Your task to perform on an android device: change the clock style Image 0: 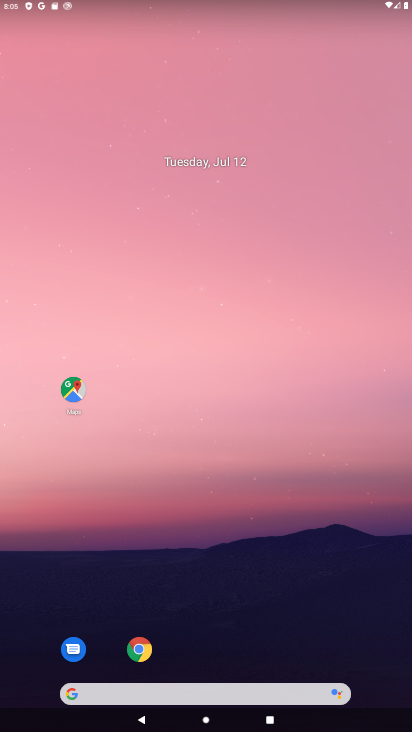
Step 0: drag from (295, 644) to (286, 193)
Your task to perform on an android device: change the clock style Image 1: 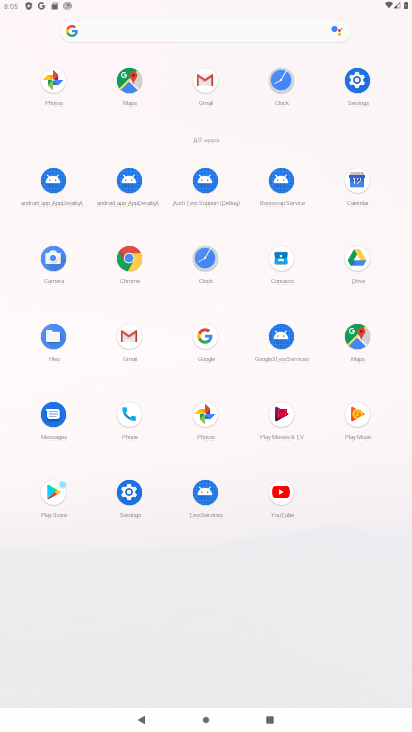
Step 1: click (210, 266)
Your task to perform on an android device: change the clock style Image 2: 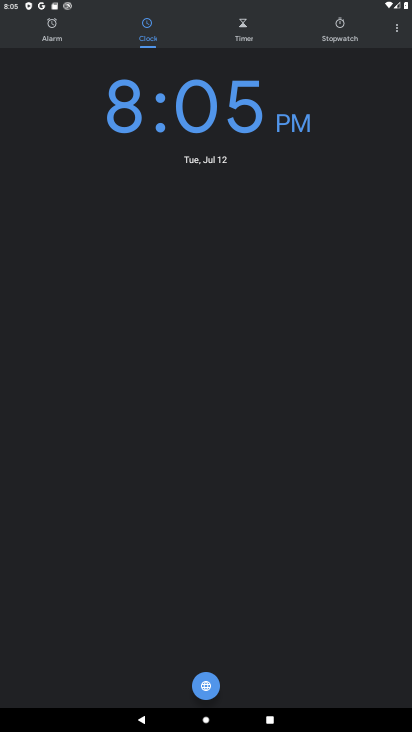
Step 2: click (392, 29)
Your task to perform on an android device: change the clock style Image 3: 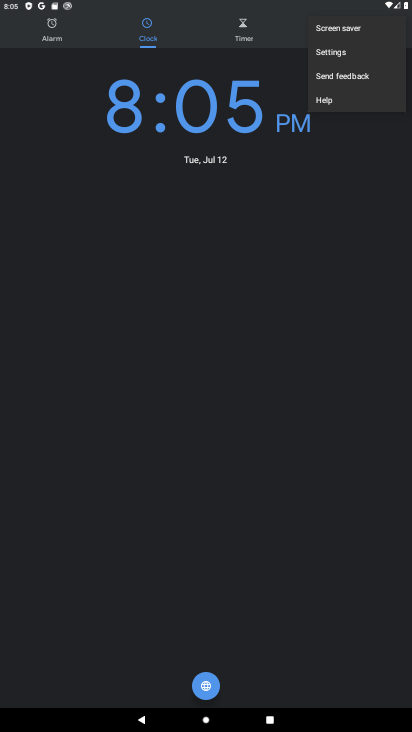
Step 3: click (347, 50)
Your task to perform on an android device: change the clock style Image 4: 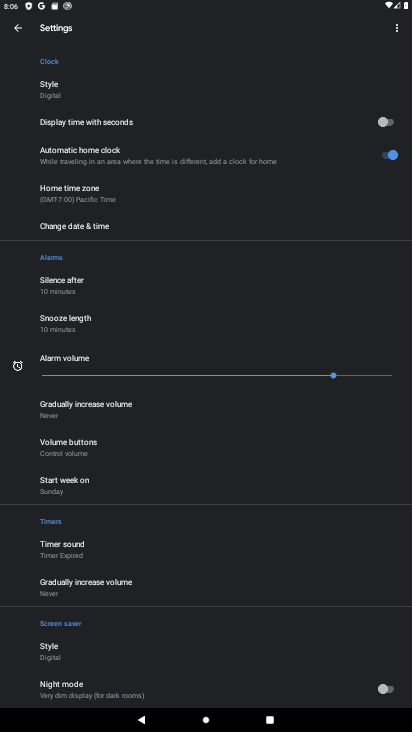
Step 4: click (150, 95)
Your task to perform on an android device: change the clock style Image 5: 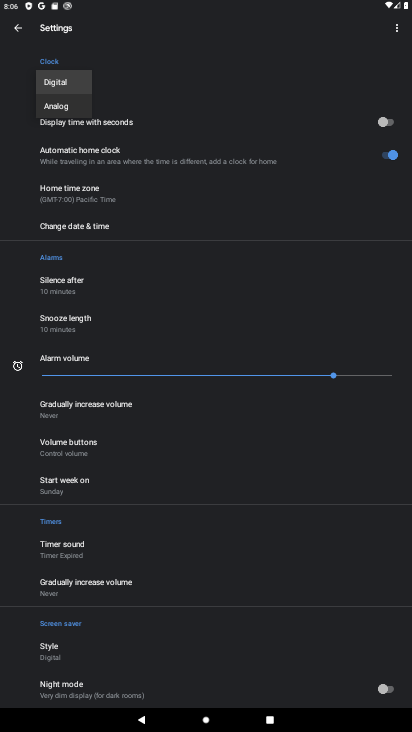
Step 5: click (74, 105)
Your task to perform on an android device: change the clock style Image 6: 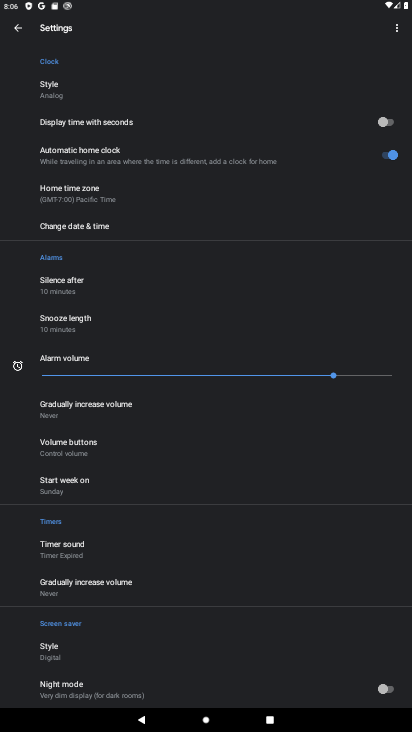
Step 6: task complete